Your task to perform on an android device: open chrome privacy settings Image 0: 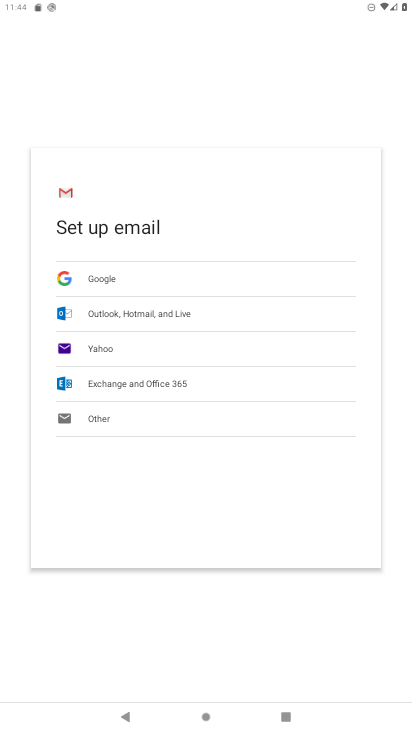
Step 0: press home button
Your task to perform on an android device: open chrome privacy settings Image 1: 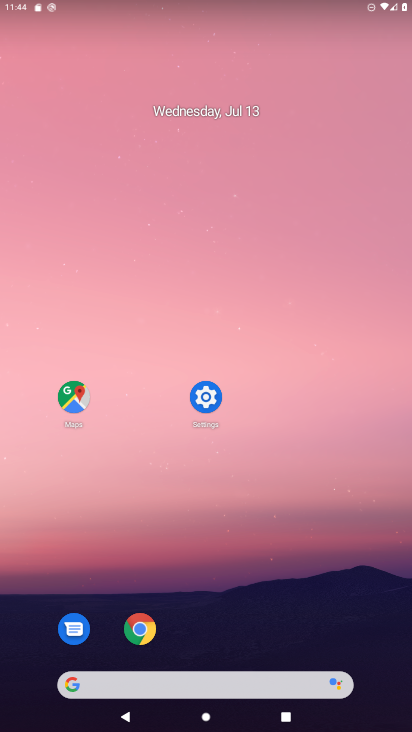
Step 1: click (138, 616)
Your task to perform on an android device: open chrome privacy settings Image 2: 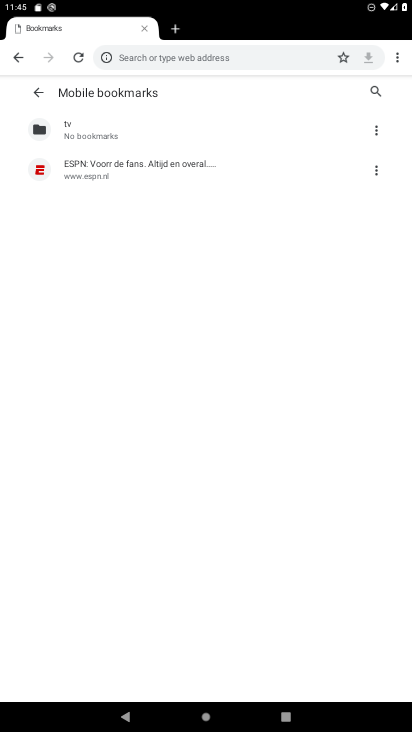
Step 2: click (17, 56)
Your task to perform on an android device: open chrome privacy settings Image 3: 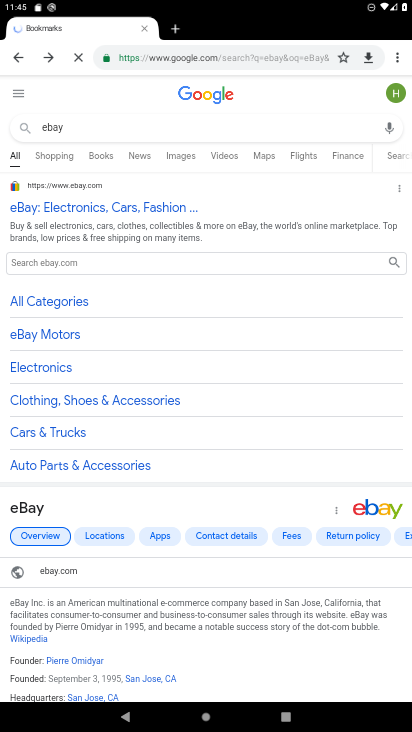
Step 3: click (17, 56)
Your task to perform on an android device: open chrome privacy settings Image 4: 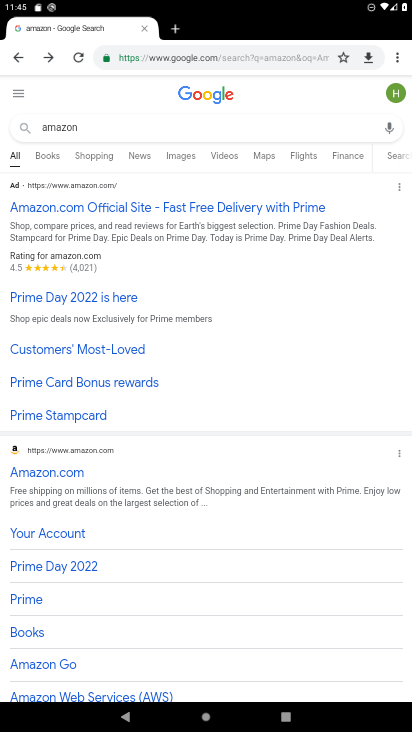
Step 4: click (402, 58)
Your task to perform on an android device: open chrome privacy settings Image 5: 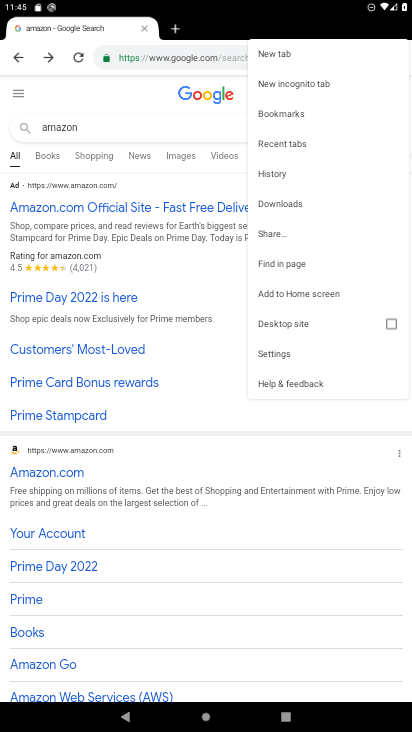
Step 5: click (278, 352)
Your task to perform on an android device: open chrome privacy settings Image 6: 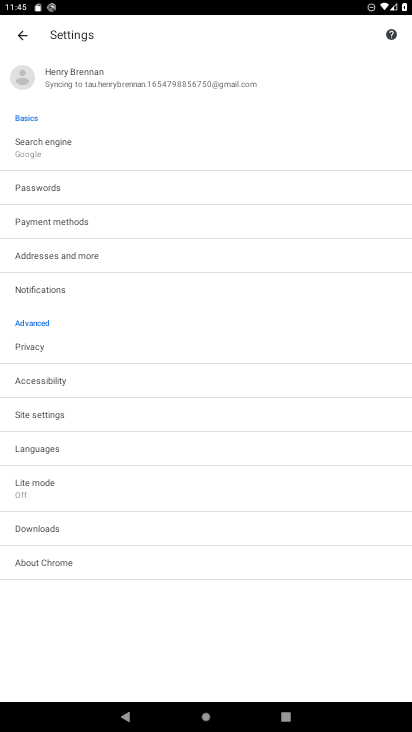
Step 6: click (32, 345)
Your task to perform on an android device: open chrome privacy settings Image 7: 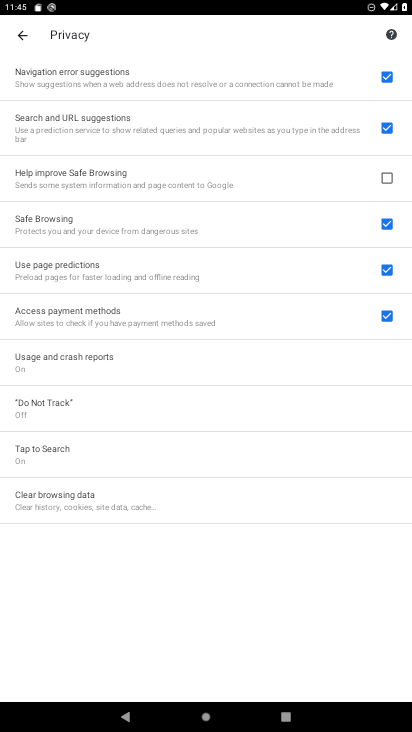
Step 7: task complete